Your task to perform on an android device: find which apps use the phone's location Image 0: 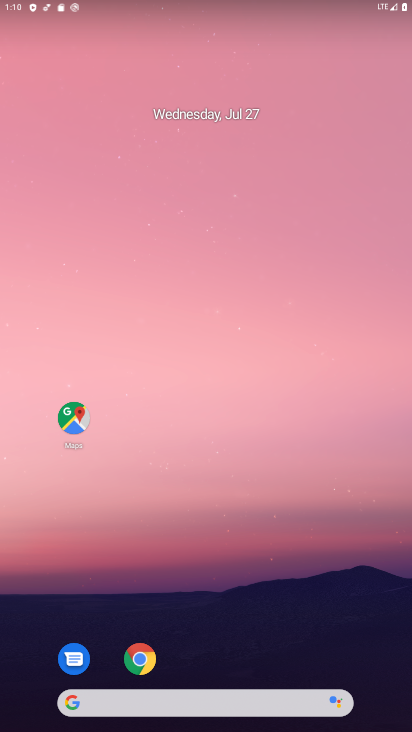
Step 0: drag from (217, 663) to (214, 85)
Your task to perform on an android device: find which apps use the phone's location Image 1: 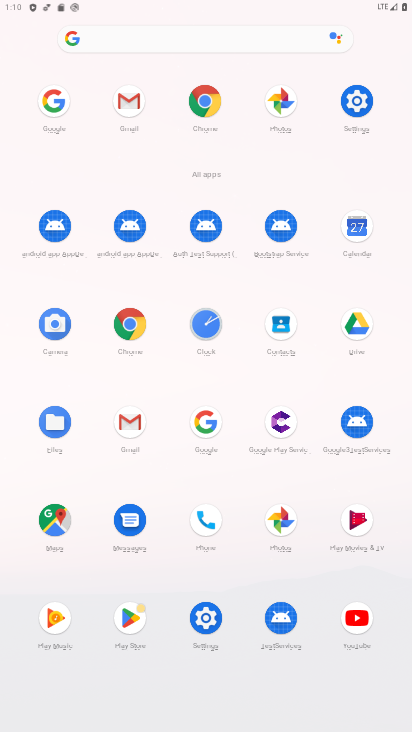
Step 1: click (354, 100)
Your task to perform on an android device: find which apps use the phone's location Image 2: 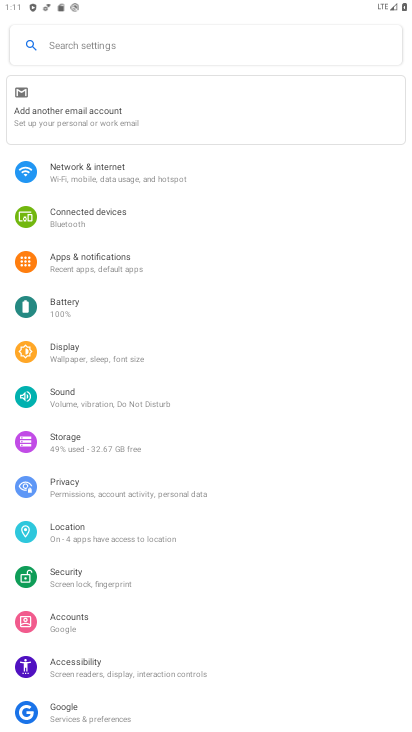
Step 2: click (73, 536)
Your task to perform on an android device: find which apps use the phone's location Image 3: 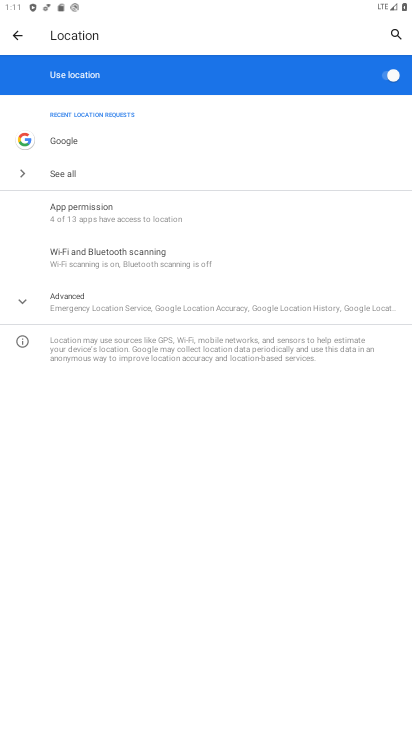
Step 3: click (76, 213)
Your task to perform on an android device: find which apps use the phone's location Image 4: 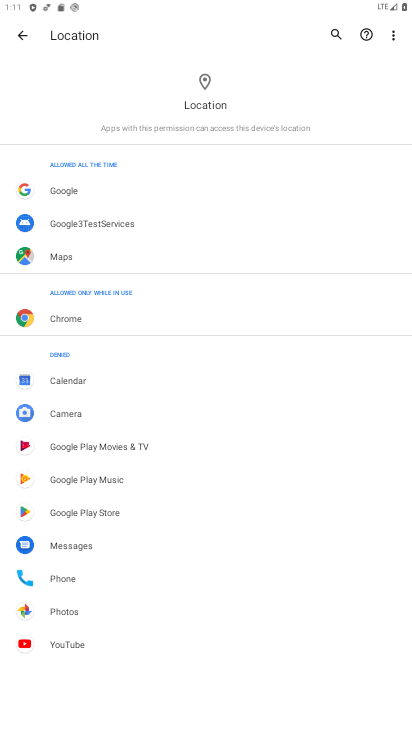
Step 4: task complete